Your task to perform on an android device: Google the capital of Panama Image 0: 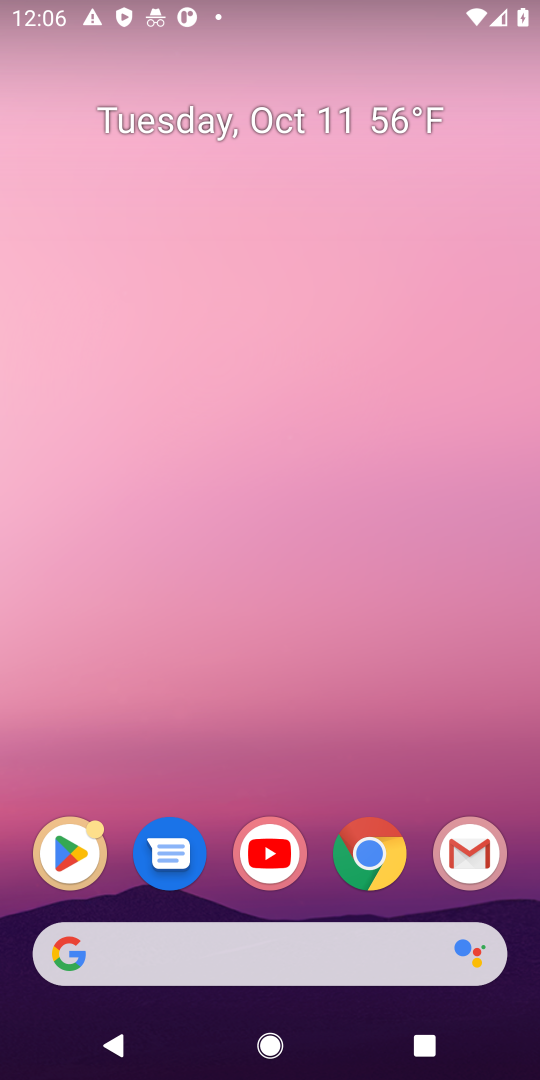
Step 0: drag from (320, 778) to (338, 0)
Your task to perform on an android device: Google the capital of Panama Image 1: 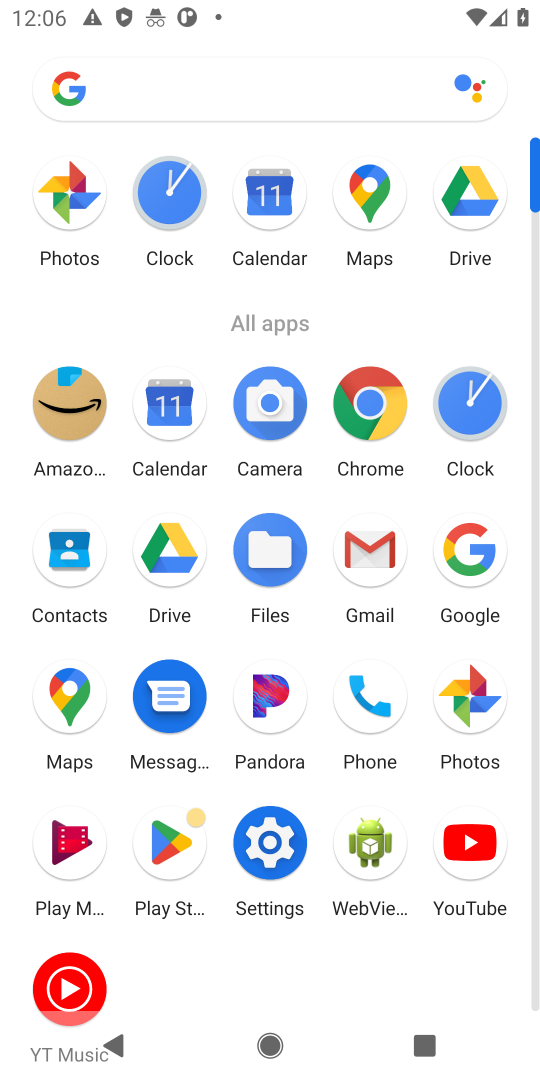
Step 1: click (373, 398)
Your task to perform on an android device: Google the capital of Panama Image 2: 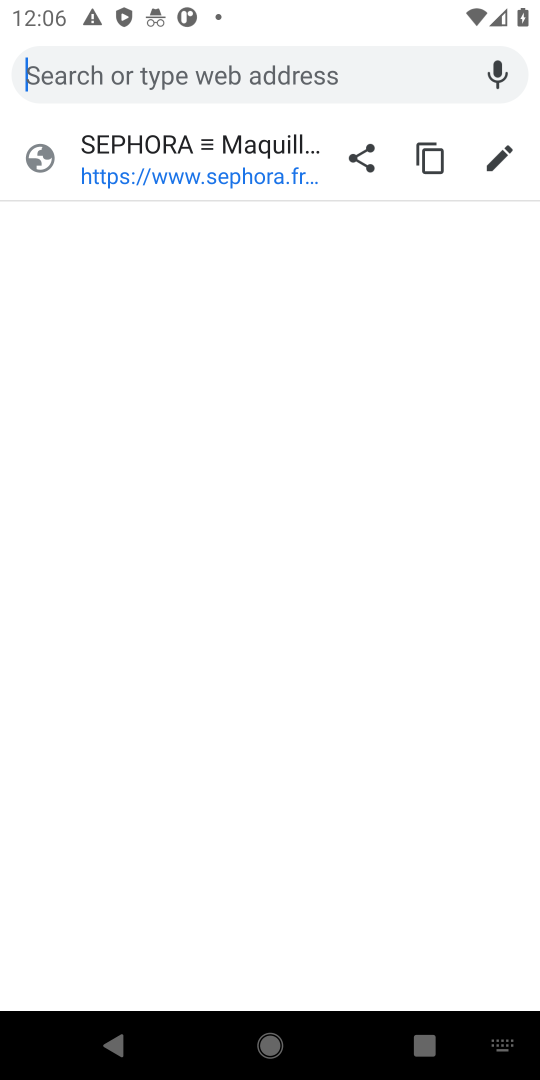
Step 2: type "Google the capital of Panama"
Your task to perform on an android device: Google the capital of Panama Image 3: 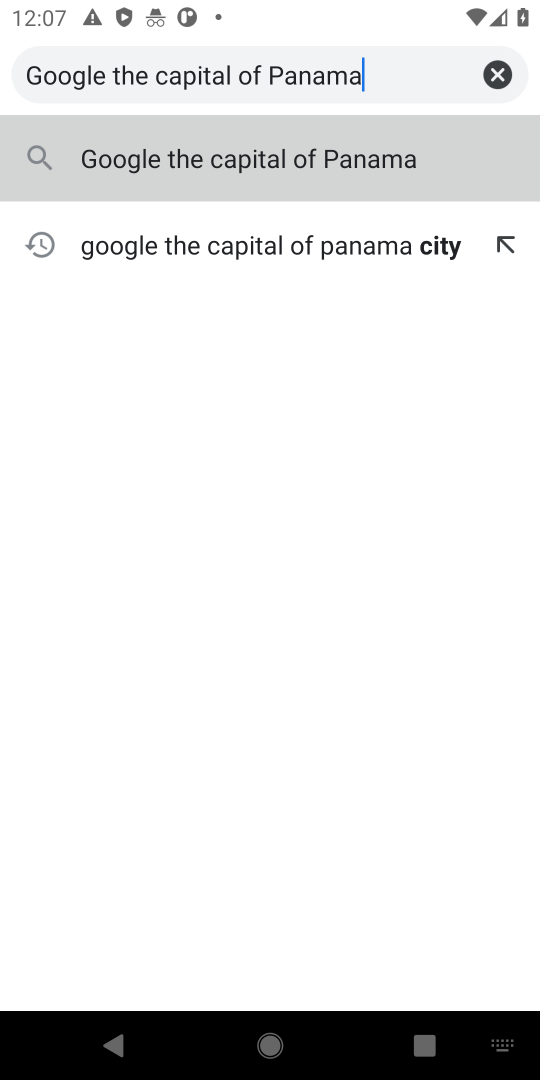
Step 3: click (349, 169)
Your task to perform on an android device: Google the capital of Panama Image 4: 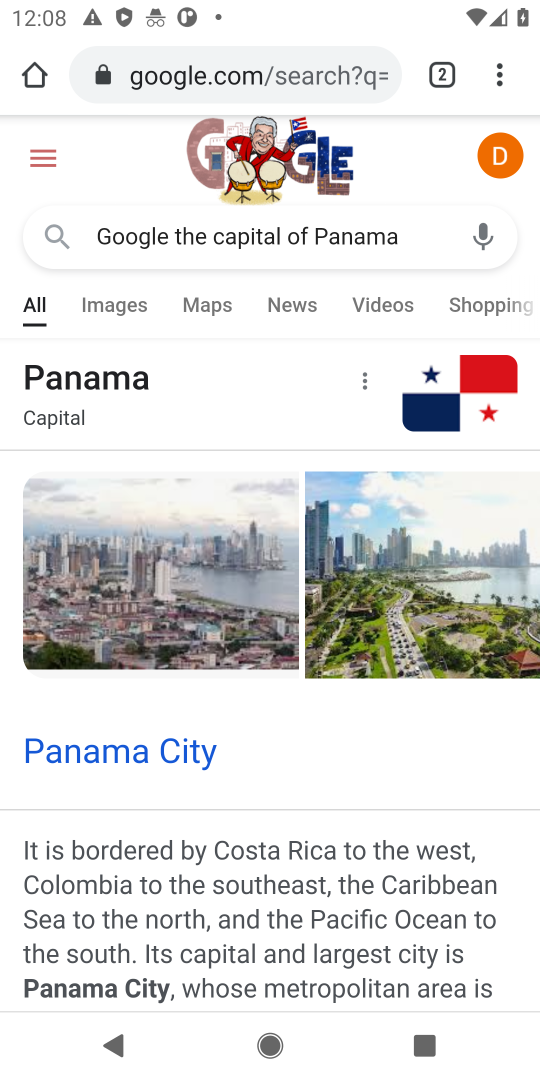
Step 4: task complete